Your task to perform on an android device: Open Amazon Image 0: 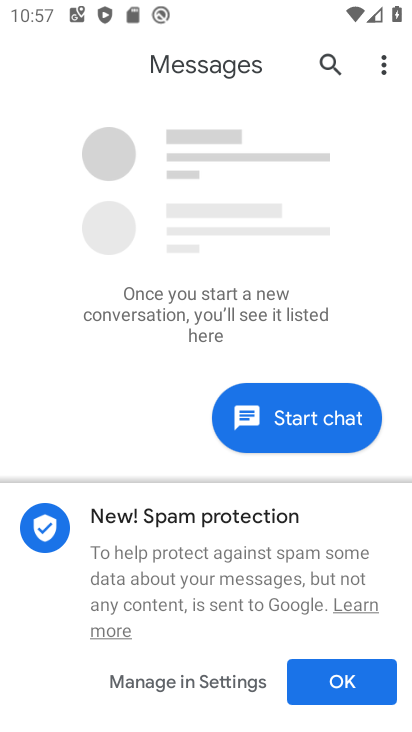
Step 0: press home button
Your task to perform on an android device: Open Amazon Image 1: 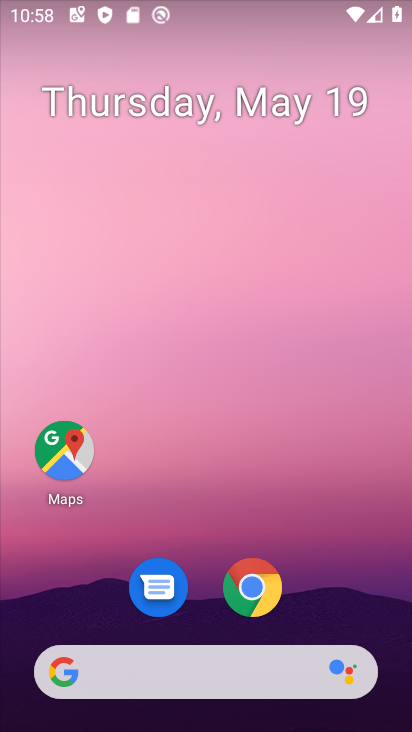
Step 1: click (259, 608)
Your task to perform on an android device: Open Amazon Image 2: 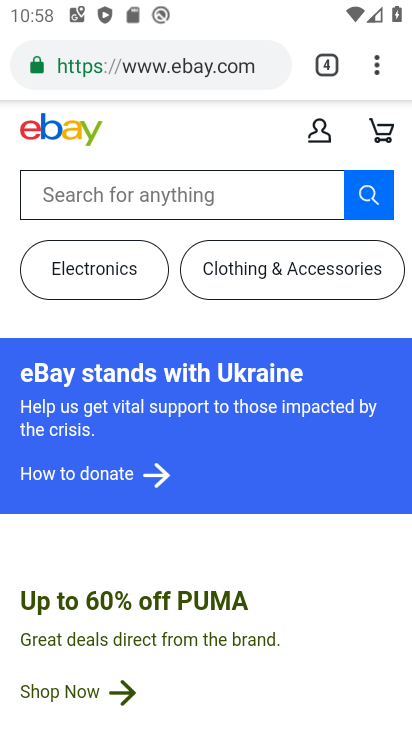
Step 2: click (175, 67)
Your task to perform on an android device: Open Amazon Image 3: 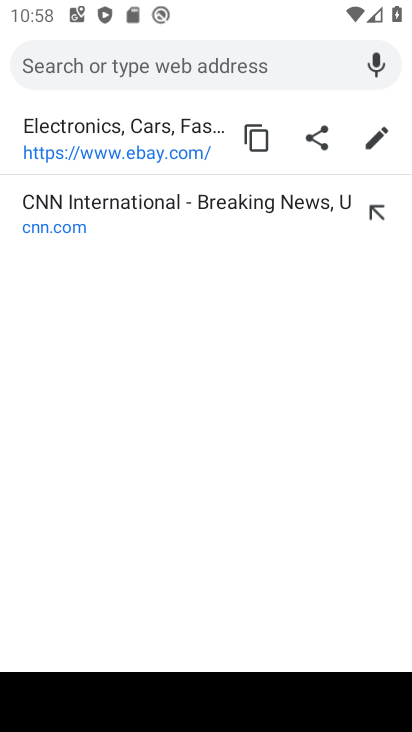
Step 3: type "amazon"
Your task to perform on an android device: Open Amazon Image 4: 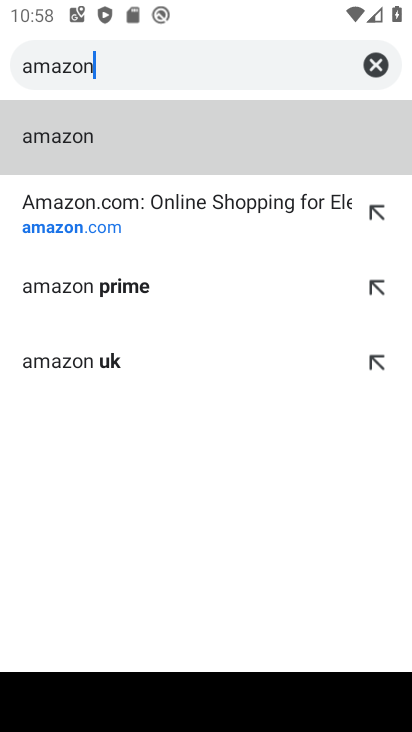
Step 4: click (118, 204)
Your task to perform on an android device: Open Amazon Image 5: 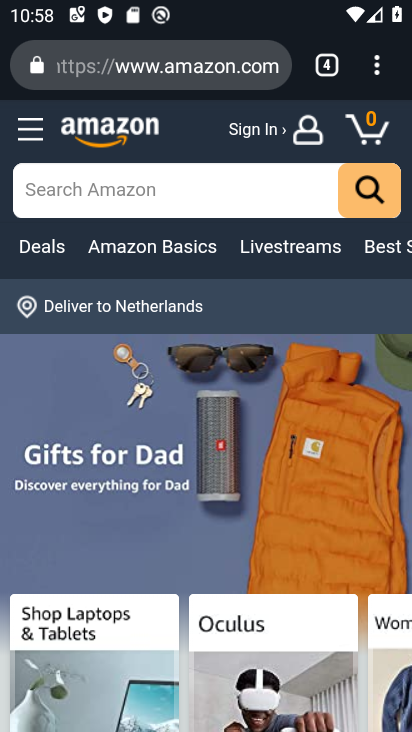
Step 5: task complete